Your task to perform on an android device: Go to calendar. Show me events next week Image 0: 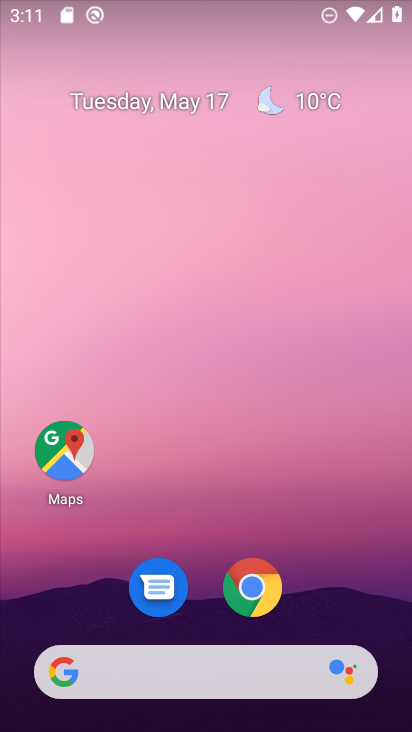
Step 0: drag from (301, 565) to (247, 0)
Your task to perform on an android device: Go to calendar. Show me events next week Image 1: 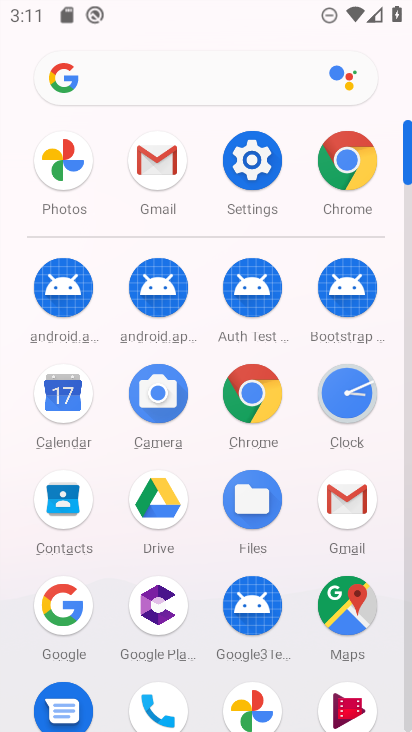
Step 1: drag from (17, 528) to (22, 153)
Your task to perform on an android device: Go to calendar. Show me events next week Image 2: 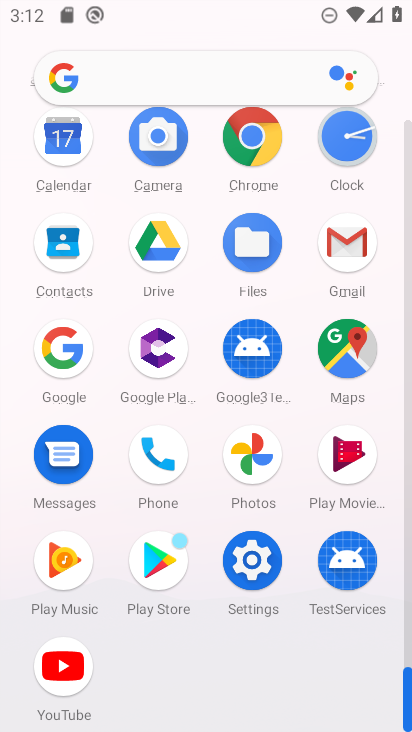
Step 2: click (56, 138)
Your task to perform on an android device: Go to calendar. Show me events next week Image 3: 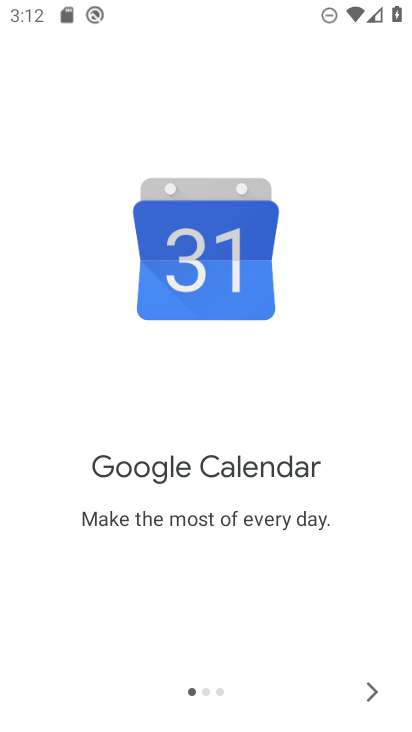
Step 3: click (371, 693)
Your task to perform on an android device: Go to calendar. Show me events next week Image 4: 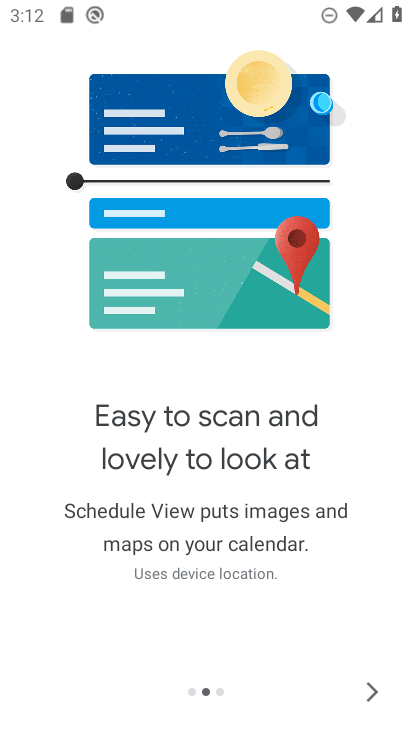
Step 4: click (374, 700)
Your task to perform on an android device: Go to calendar. Show me events next week Image 5: 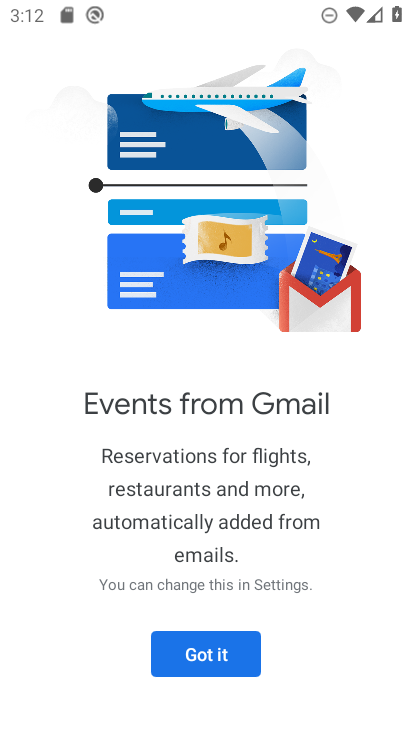
Step 5: click (192, 645)
Your task to perform on an android device: Go to calendar. Show me events next week Image 6: 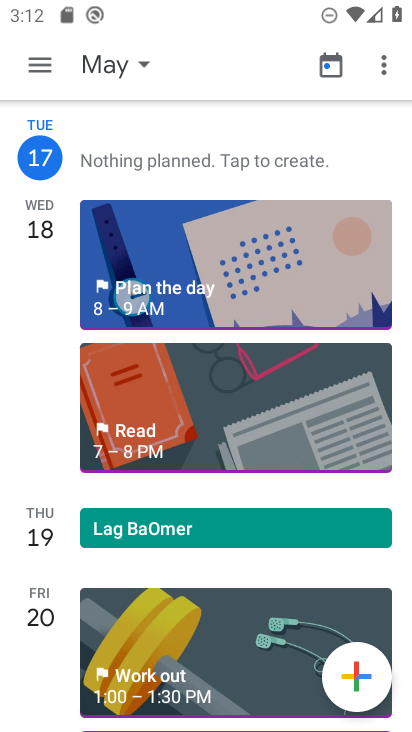
Step 6: click (110, 59)
Your task to perform on an android device: Go to calendar. Show me events next week Image 7: 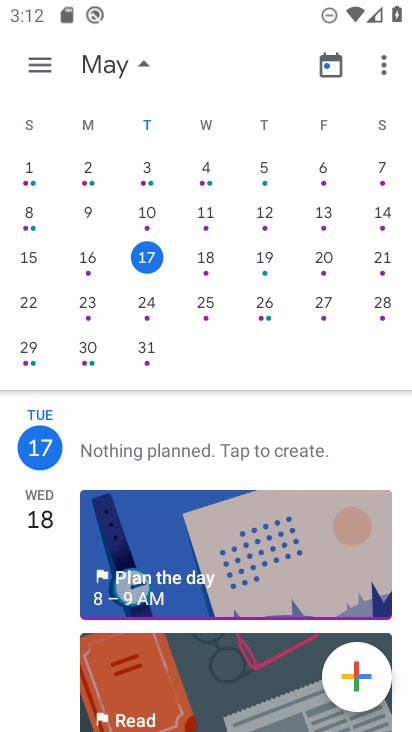
Step 7: click (331, 66)
Your task to perform on an android device: Go to calendar. Show me events next week Image 8: 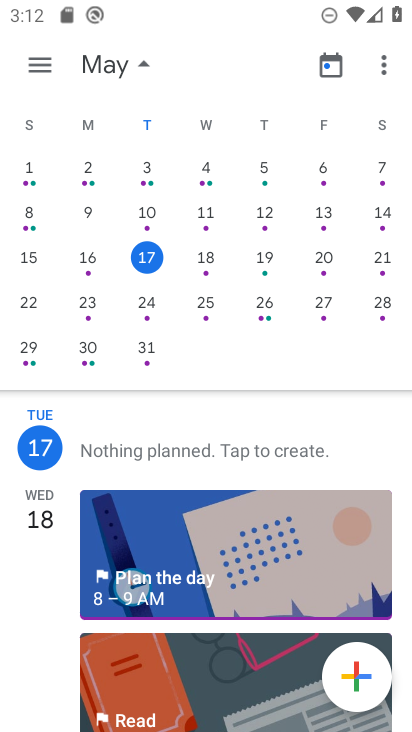
Step 8: click (37, 61)
Your task to perform on an android device: Go to calendar. Show me events next week Image 9: 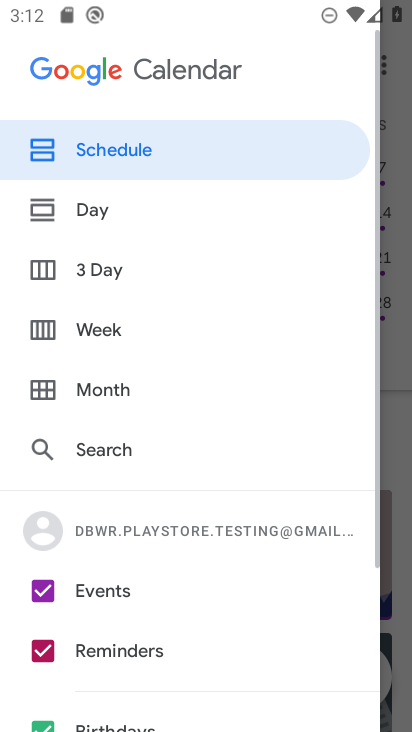
Step 9: click (95, 320)
Your task to perform on an android device: Go to calendar. Show me events next week Image 10: 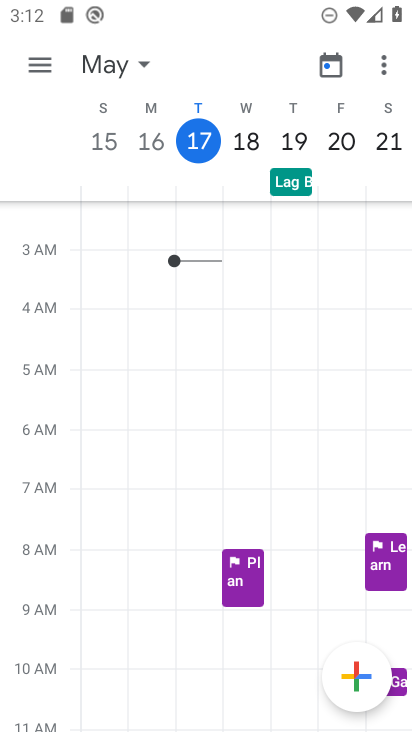
Step 10: task complete